Your task to perform on an android device: Open accessibility settings Image 0: 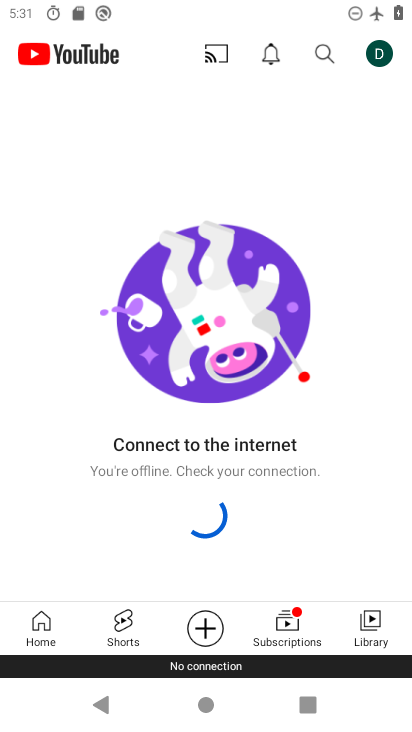
Step 0: press home button
Your task to perform on an android device: Open accessibility settings Image 1: 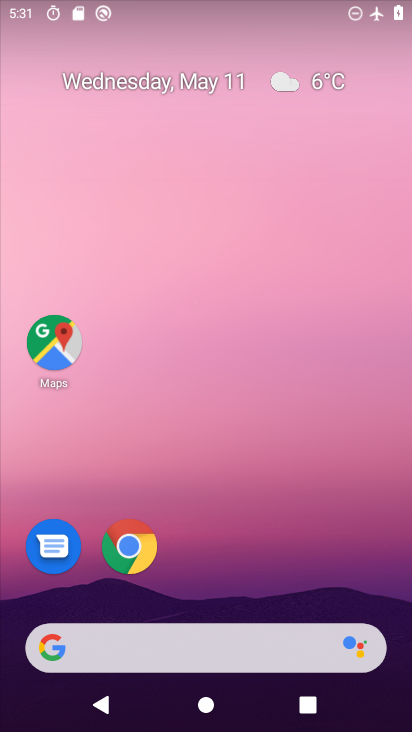
Step 1: drag from (200, 615) to (157, 289)
Your task to perform on an android device: Open accessibility settings Image 2: 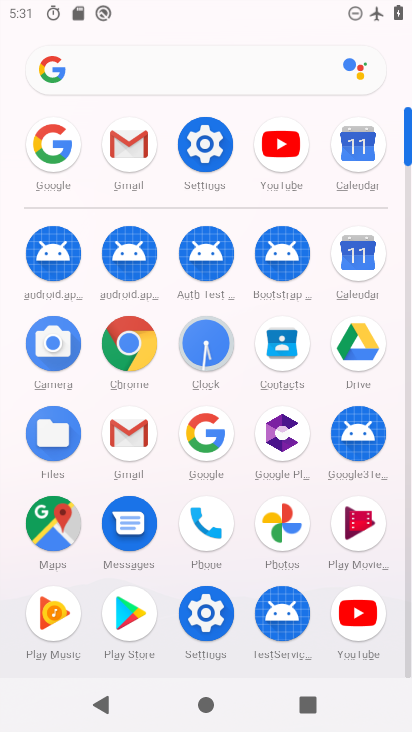
Step 2: click (194, 149)
Your task to perform on an android device: Open accessibility settings Image 3: 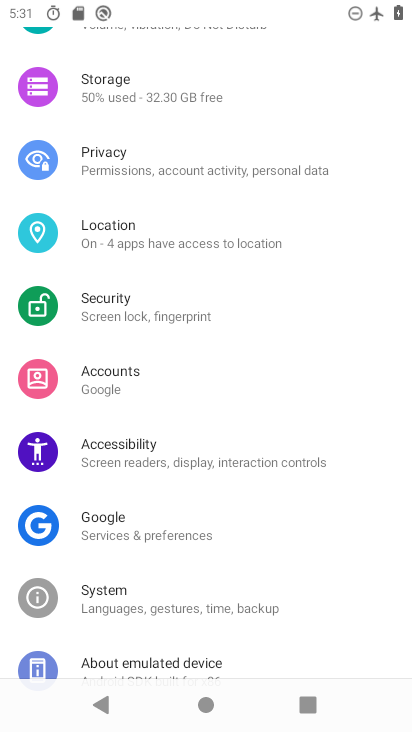
Step 3: click (164, 450)
Your task to perform on an android device: Open accessibility settings Image 4: 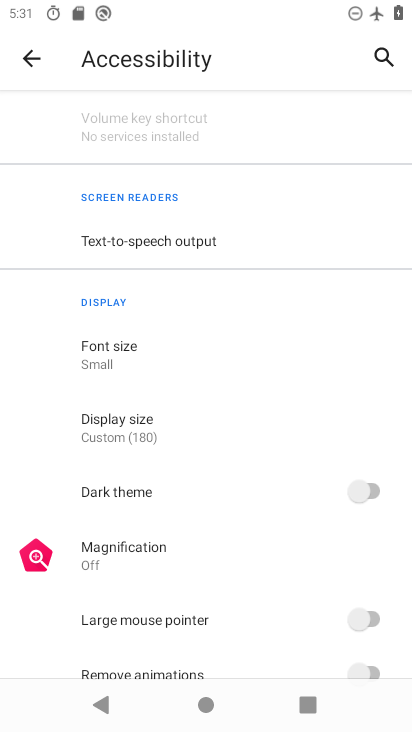
Step 4: task complete